Your task to perform on an android device: What's on my calendar today? Image 0: 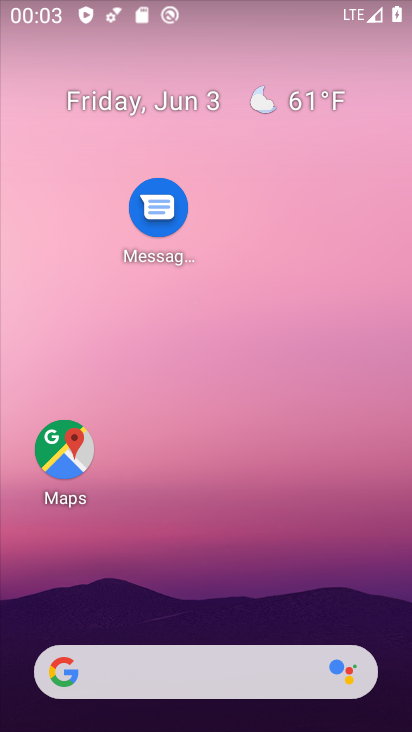
Step 0: drag from (230, 658) to (191, 0)
Your task to perform on an android device: What's on my calendar today? Image 1: 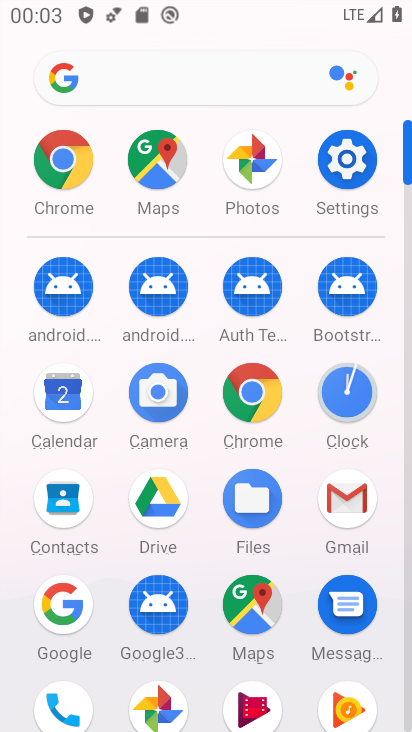
Step 1: click (59, 414)
Your task to perform on an android device: What's on my calendar today? Image 2: 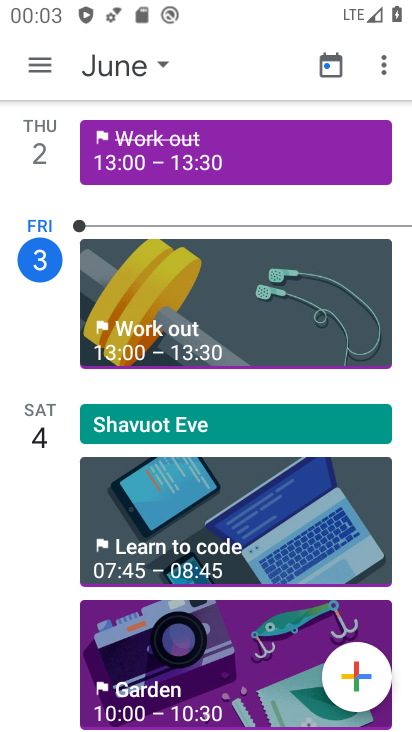
Step 2: click (39, 240)
Your task to perform on an android device: What's on my calendar today? Image 3: 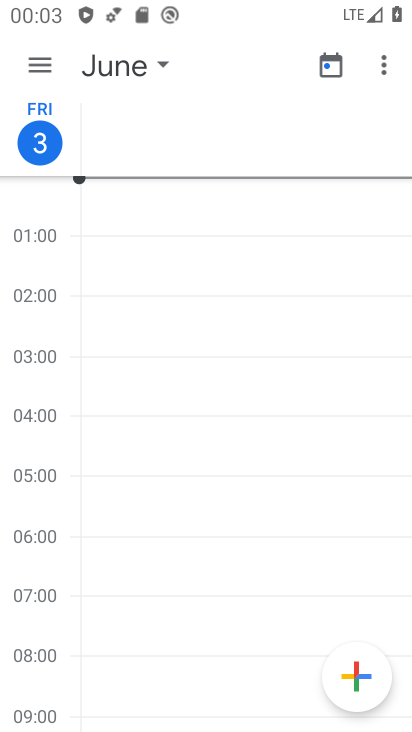
Step 3: task complete